Your task to perform on an android device: Go to eBay Image 0: 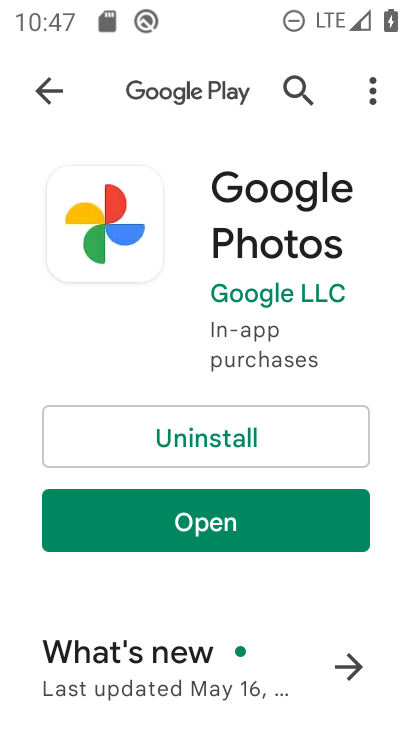
Step 0: press home button
Your task to perform on an android device: Go to eBay Image 1: 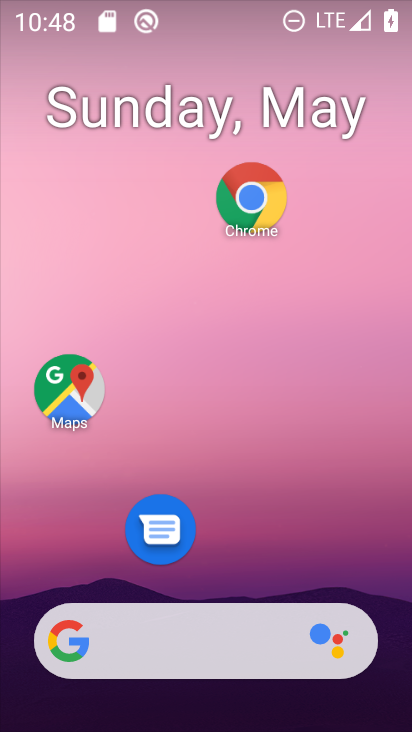
Step 1: click (250, 202)
Your task to perform on an android device: Go to eBay Image 2: 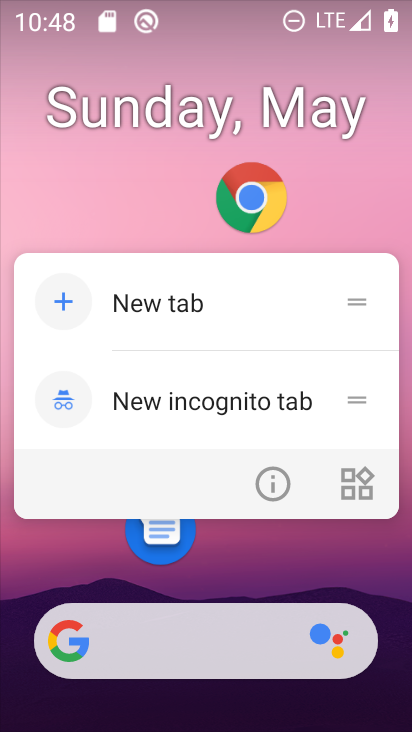
Step 2: click (250, 201)
Your task to perform on an android device: Go to eBay Image 3: 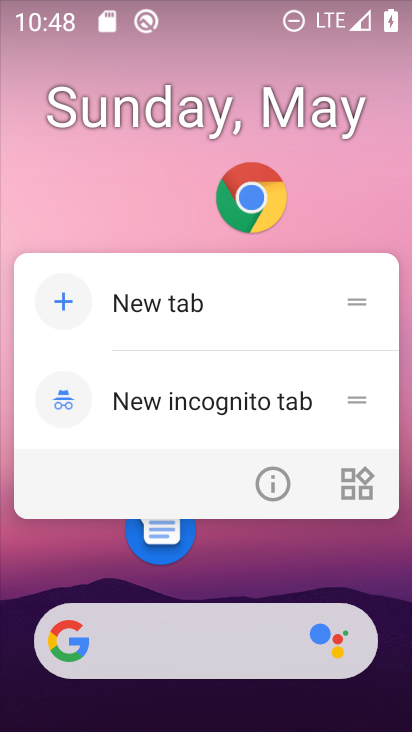
Step 3: click (250, 201)
Your task to perform on an android device: Go to eBay Image 4: 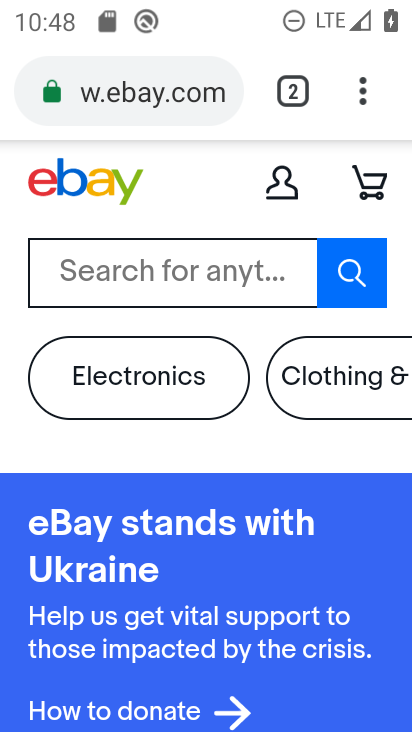
Step 4: task complete